Your task to perform on an android device: turn on translation in the chrome app Image 0: 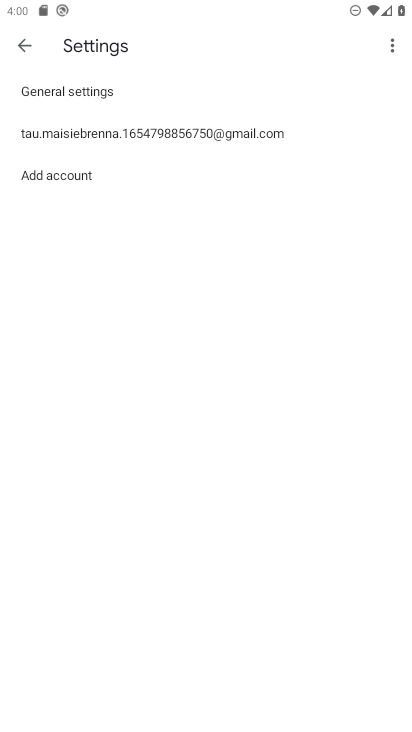
Step 0: press home button
Your task to perform on an android device: turn on translation in the chrome app Image 1: 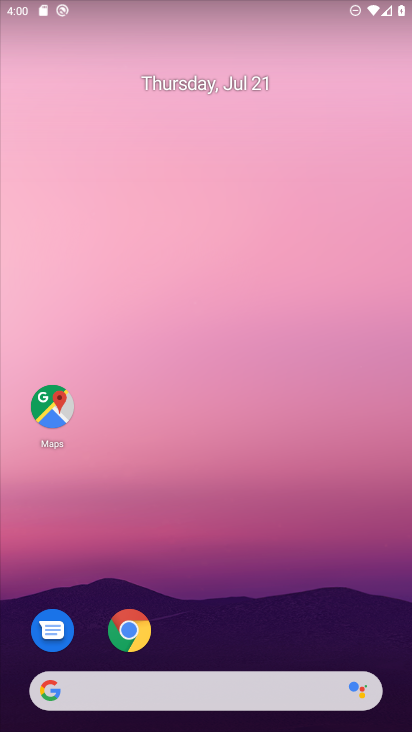
Step 1: click (134, 630)
Your task to perform on an android device: turn on translation in the chrome app Image 2: 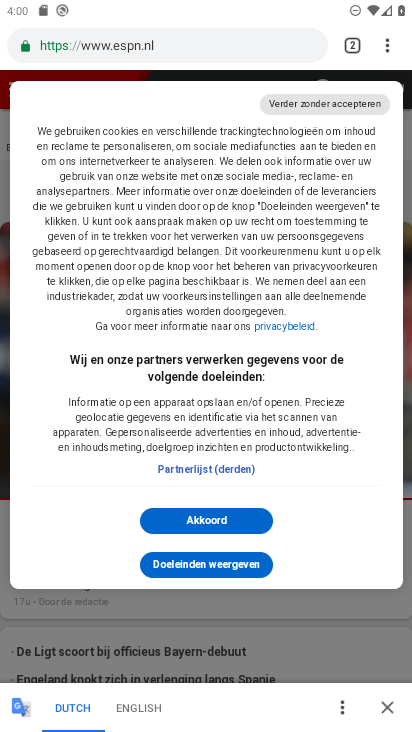
Step 2: drag from (383, 43) to (232, 545)
Your task to perform on an android device: turn on translation in the chrome app Image 3: 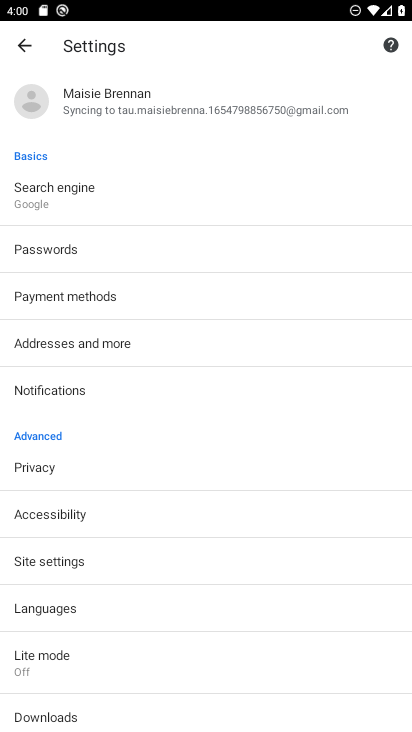
Step 3: click (77, 606)
Your task to perform on an android device: turn on translation in the chrome app Image 4: 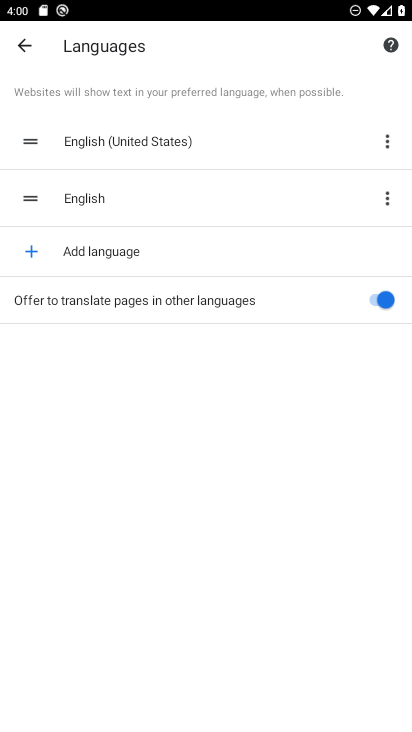
Step 4: task complete